Your task to perform on an android device: Play the last video I watched on Youtube Image 0: 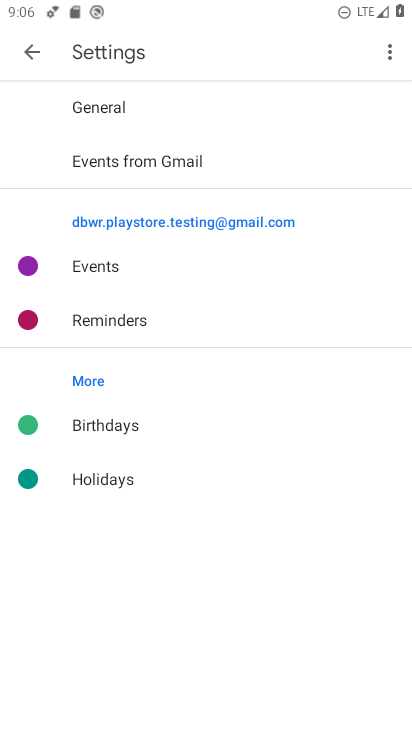
Step 0: press home button
Your task to perform on an android device: Play the last video I watched on Youtube Image 1: 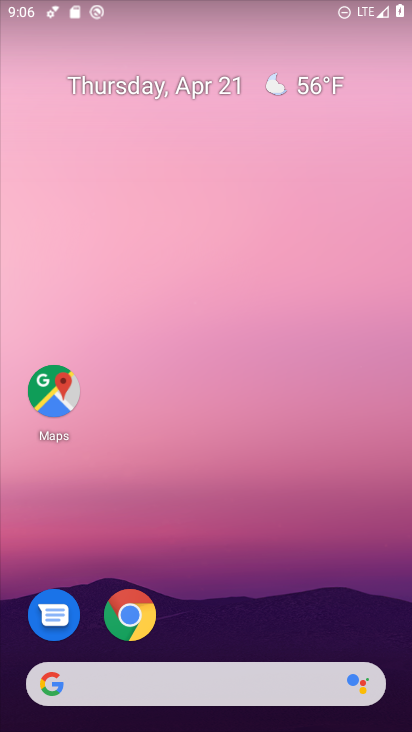
Step 1: drag from (290, 505) to (315, 39)
Your task to perform on an android device: Play the last video I watched on Youtube Image 2: 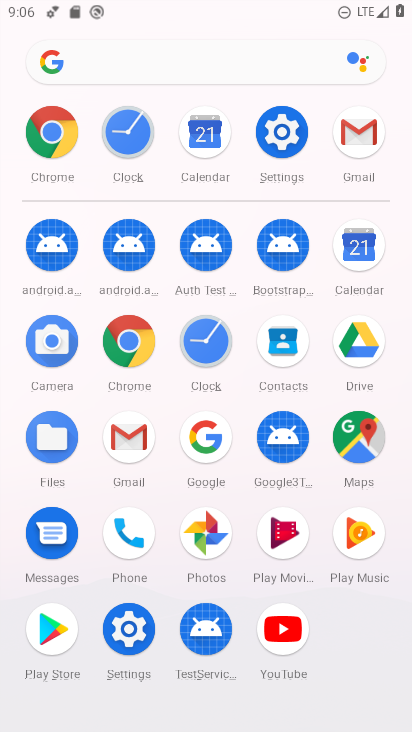
Step 2: click (279, 645)
Your task to perform on an android device: Play the last video I watched on Youtube Image 3: 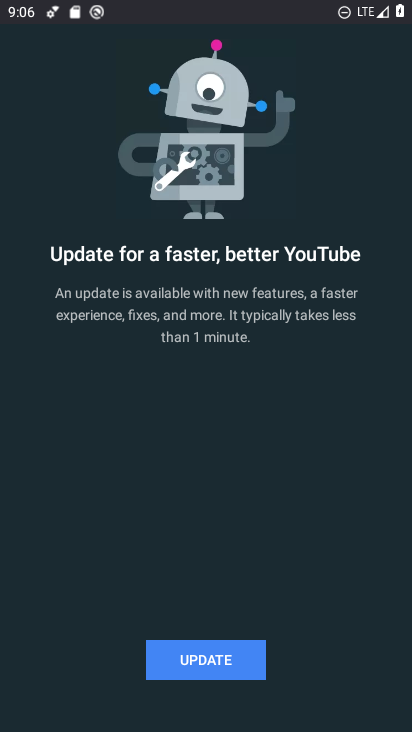
Step 3: click (241, 664)
Your task to perform on an android device: Play the last video I watched on Youtube Image 4: 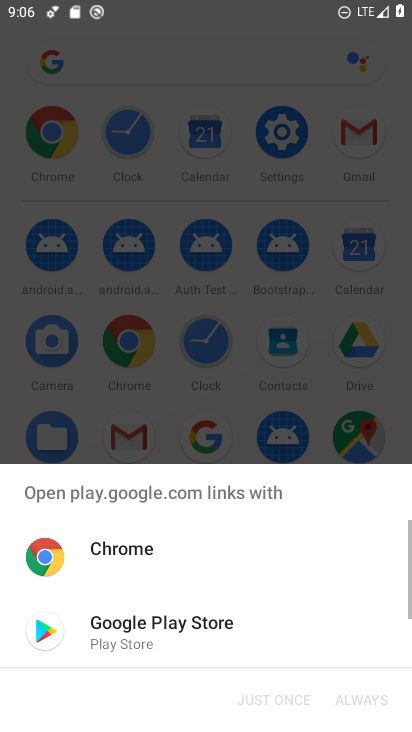
Step 4: click (91, 640)
Your task to perform on an android device: Play the last video I watched on Youtube Image 5: 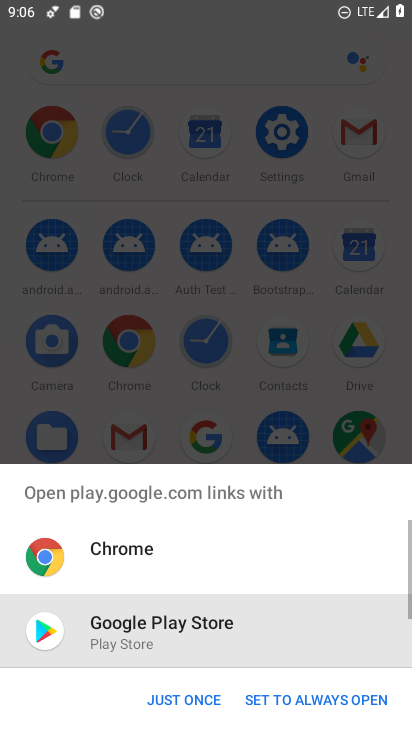
Step 5: click (166, 694)
Your task to perform on an android device: Play the last video I watched on Youtube Image 6: 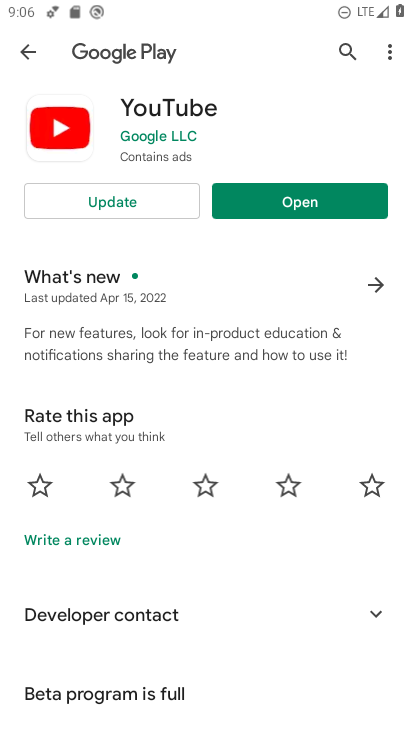
Step 6: click (133, 196)
Your task to perform on an android device: Play the last video I watched on Youtube Image 7: 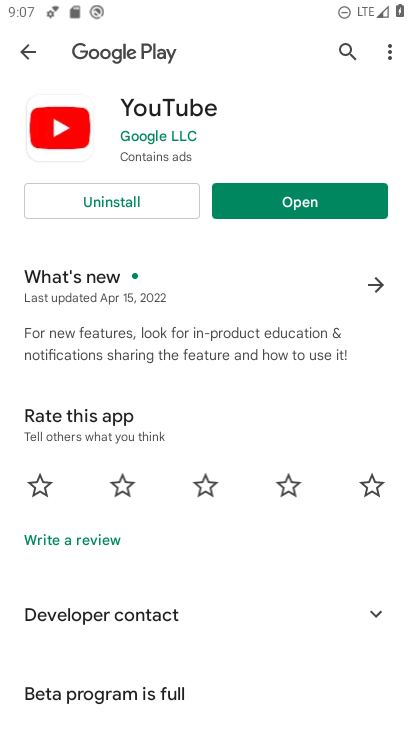
Step 7: click (299, 200)
Your task to perform on an android device: Play the last video I watched on Youtube Image 8: 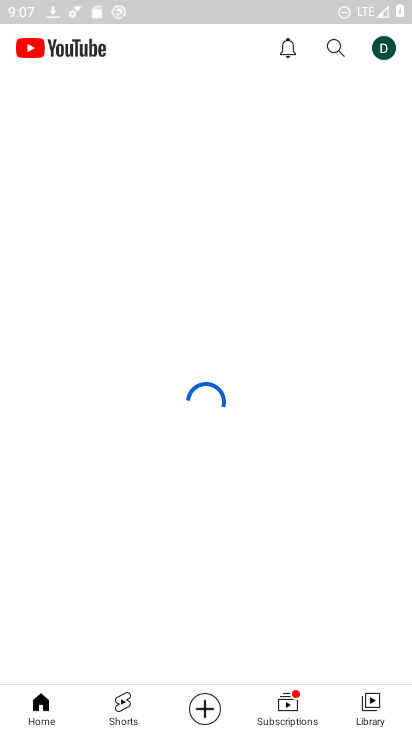
Step 8: click (361, 710)
Your task to perform on an android device: Play the last video I watched on Youtube Image 9: 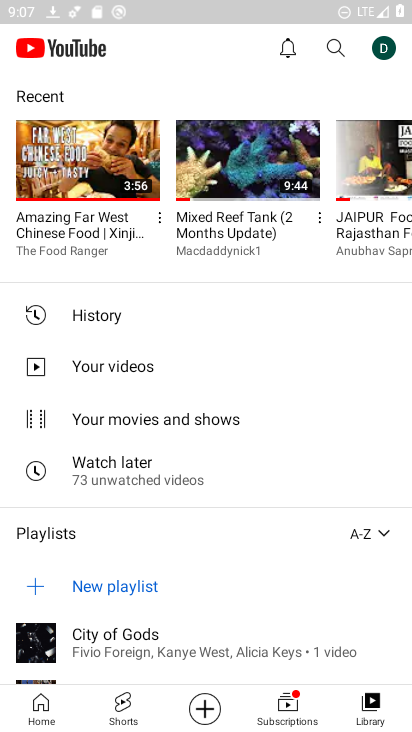
Step 9: task complete